Your task to perform on an android device: turn off smart reply in the gmail app Image 0: 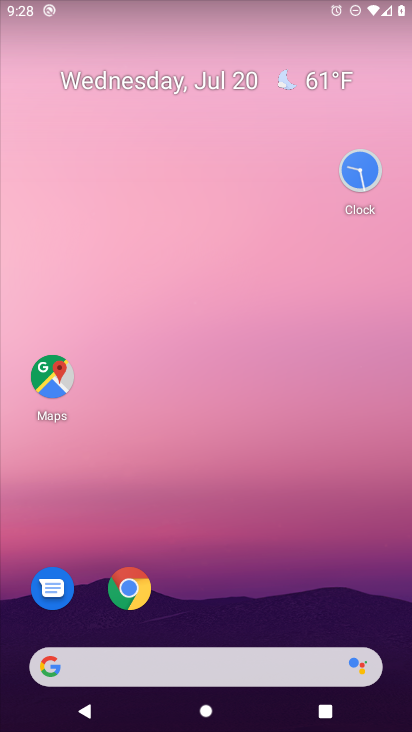
Step 0: drag from (114, 349) to (157, 204)
Your task to perform on an android device: turn off smart reply in the gmail app Image 1: 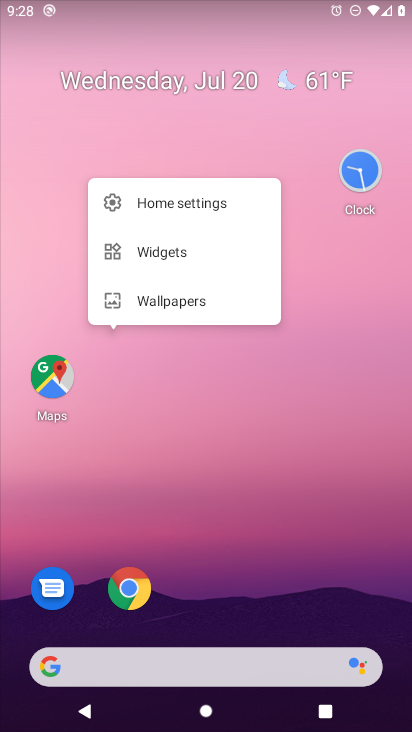
Step 1: click (205, 75)
Your task to perform on an android device: turn off smart reply in the gmail app Image 2: 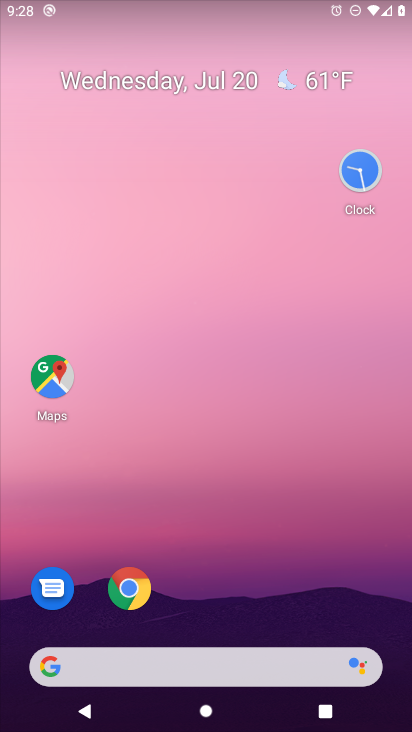
Step 2: drag from (19, 701) to (150, 164)
Your task to perform on an android device: turn off smart reply in the gmail app Image 3: 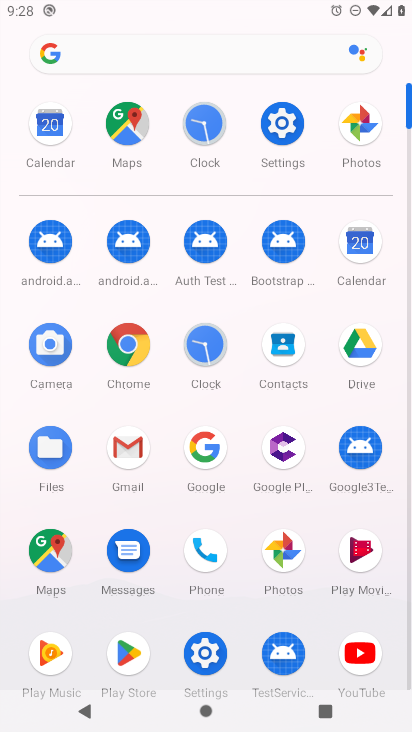
Step 3: click (136, 452)
Your task to perform on an android device: turn off smart reply in the gmail app Image 4: 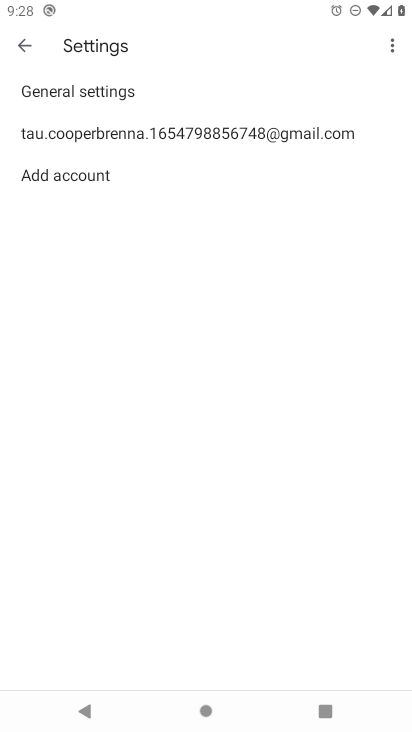
Step 4: click (53, 142)
Your task to perform on an android device: turn off smart reply in the gmail app Image 5: 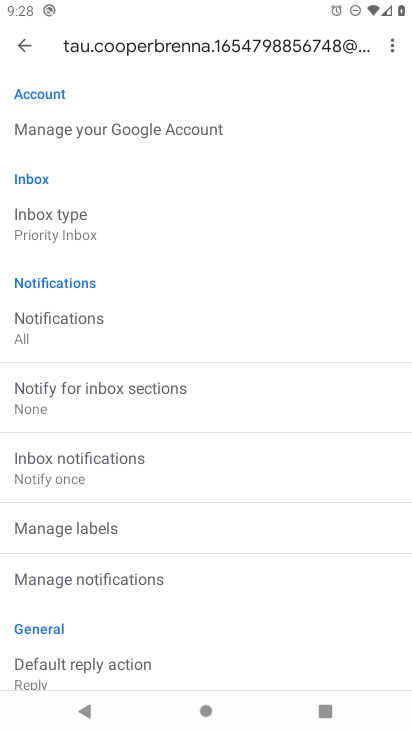
Step 5: task complete